Your task to perform on an android device: Go to battery settings Image 0: 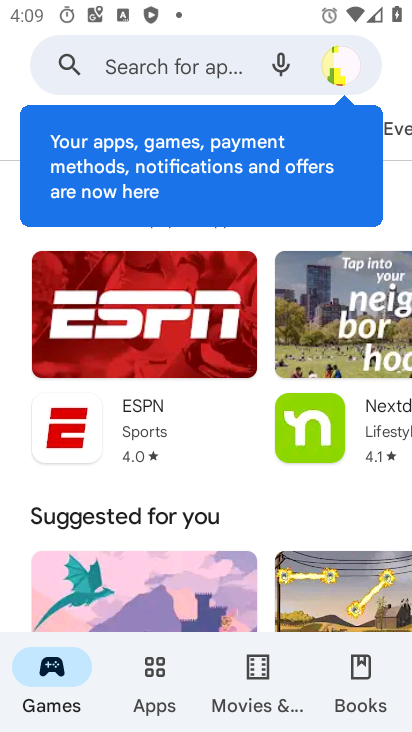
Step 0: press home button
Your task to perform on an android device: Go to battery settings Image 1: 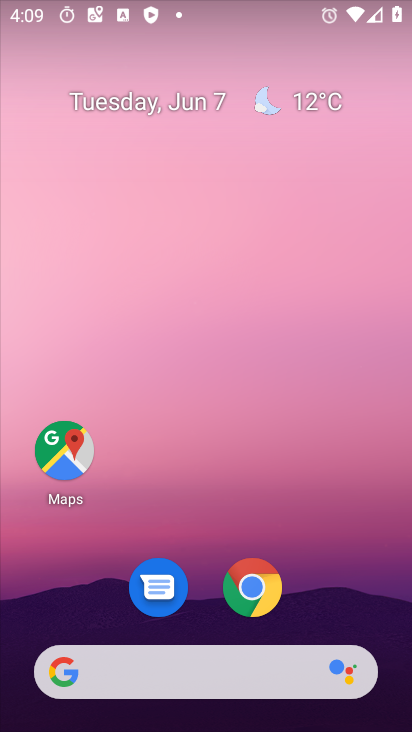
Step 1: drag from (268, 496) to (323, 17)
Your task to perform on an android device: Go to battery settings Image 2: 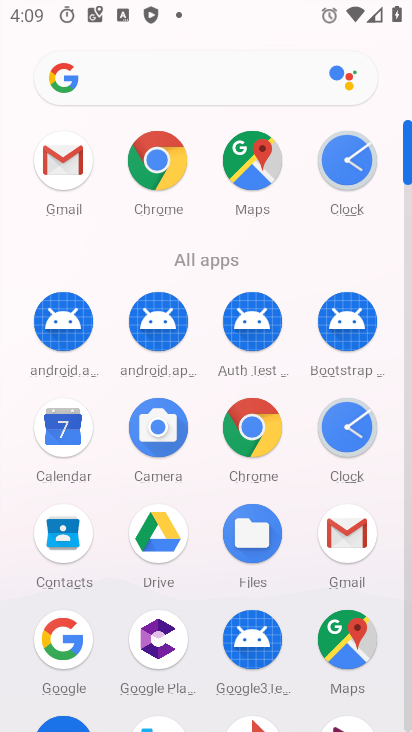
Step 2: drag from (238, 518) to (263, 33)
Your task to perform on an android device: Go to battery settings Image 3: 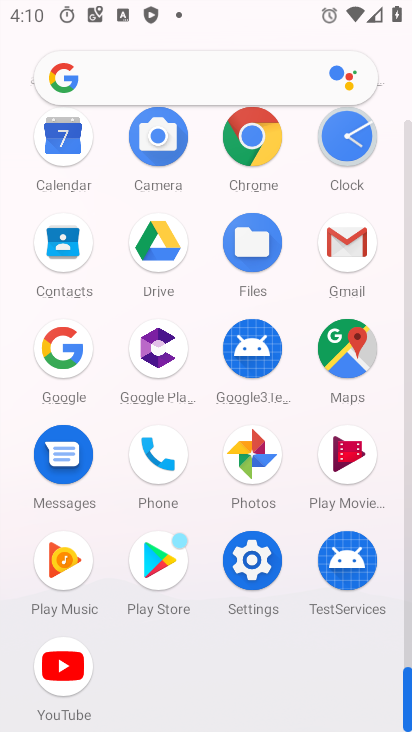
Step 3: click (279, 574)
Your task to perform on an android device: Go to battery settings Image 4: 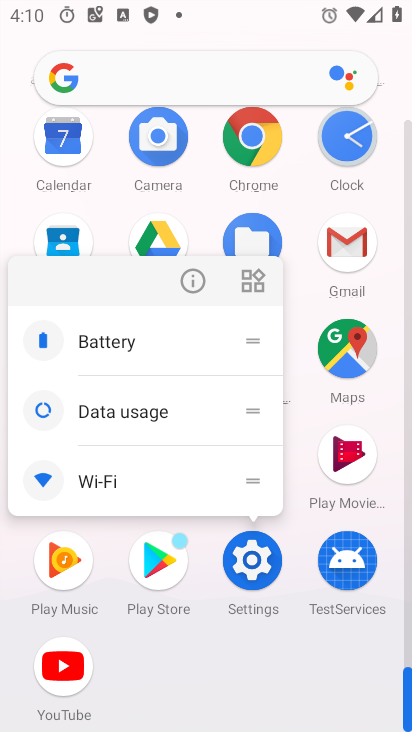
Step 4: click (287, 568)
Your task to perform on an android device: Go to battery settings Image 5: 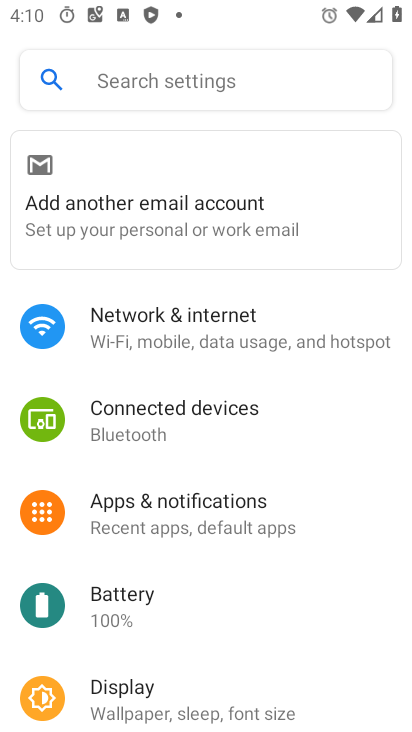
Step 5: click (203, 613)
Your task to perform on an android device: Go to battery settings Image 6: 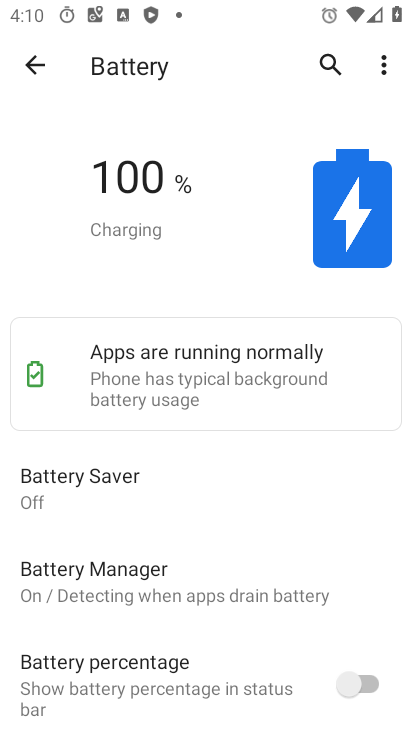
Step 6: task complete